Your task to perform on an android device: change alarm snooze length Image 0: 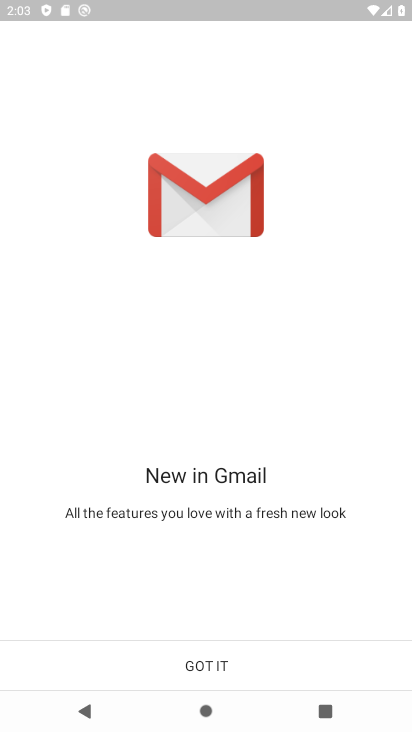
Step 0: press home button
Your task to perform on an android device: change alarm snooze length Image 1: 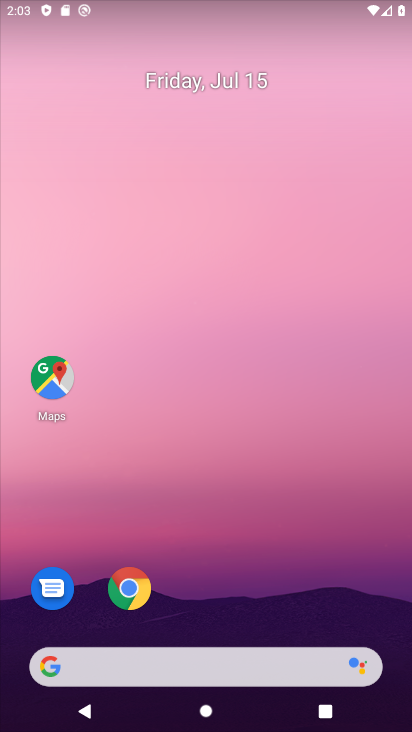
Step 1: drag from (280, 602) to (190, 0)
Your task to perform on an android device: change alarm snooze length Image 2: 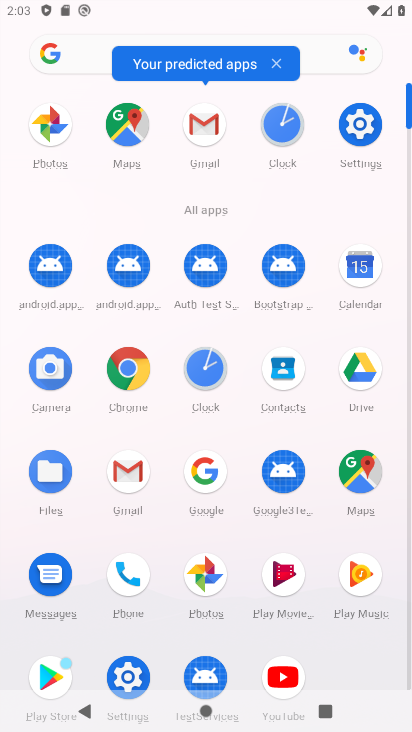
Step 2: click (209, 374)
Your task to perform on an android device: change alarm snooze length Image 3: 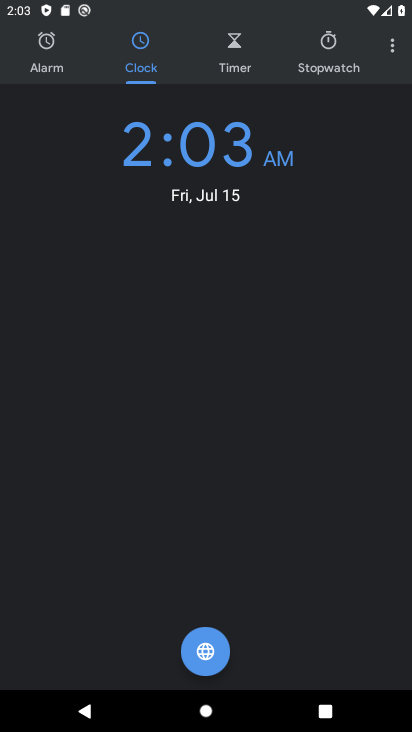
Step 3: click (402, 49)
Your task to perform on an android device: change alarm snooze length Image 4: 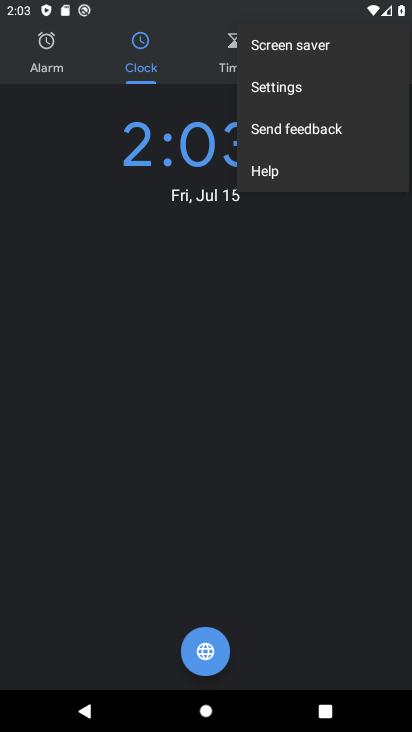
Step 4: click (291, 92)
Your task to perform on an android device: change alarm snooze length Image 5: 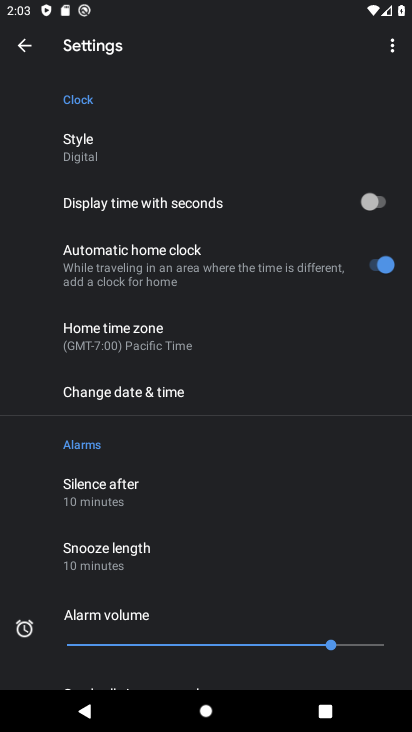
Step 5: click (153, 540)
Your task to perform on an android device: change alarm snooze length Image 6: 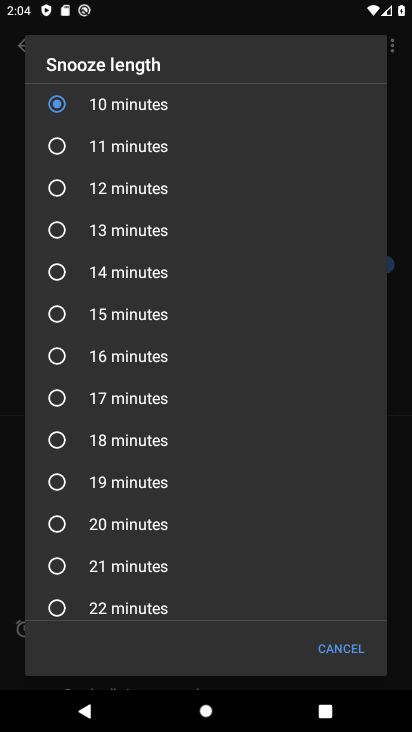
Step 6: click (146, 317)
Your task to perform on an android device: change alarm snooze length Image 7: 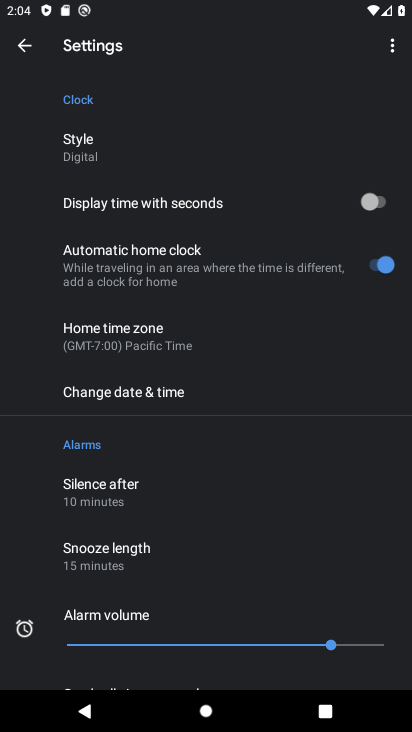
Step 7: task complete